Your task to perform on an android device: Check the news Image 0: 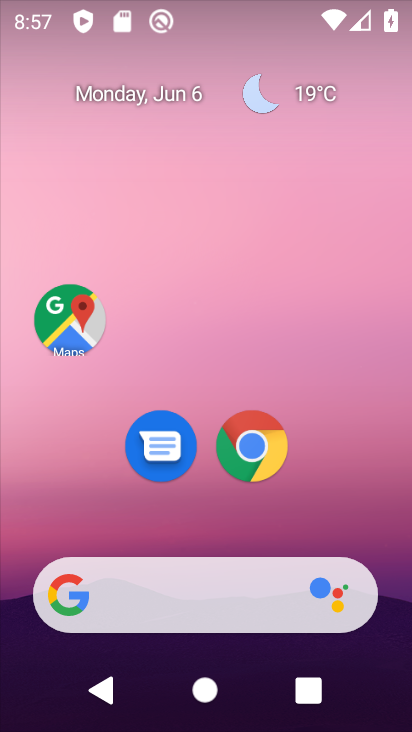
Step 0: drag from (203, 563) to (189, 290)
Your task to perform on an android device: Check the news Image 1: 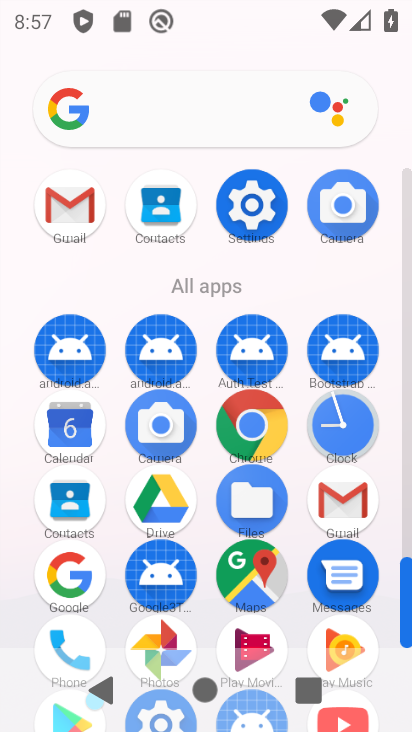
Step 1: click (65, 581)
Your task to perform on an android device: Check the news Image 2: 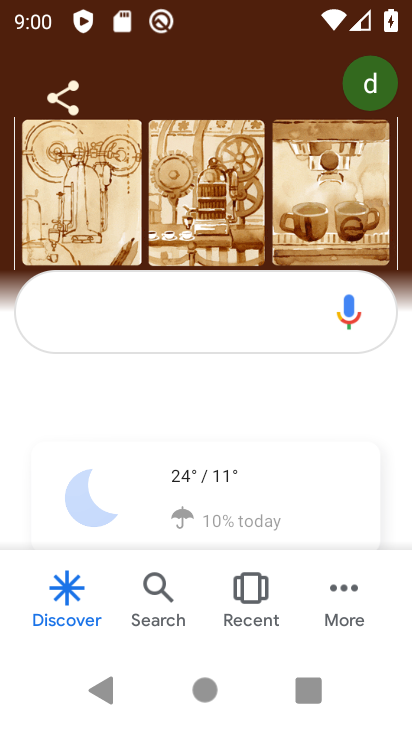
Step 2: click (184, 324)
Your task to perform on an android device: Check the news Image 3: 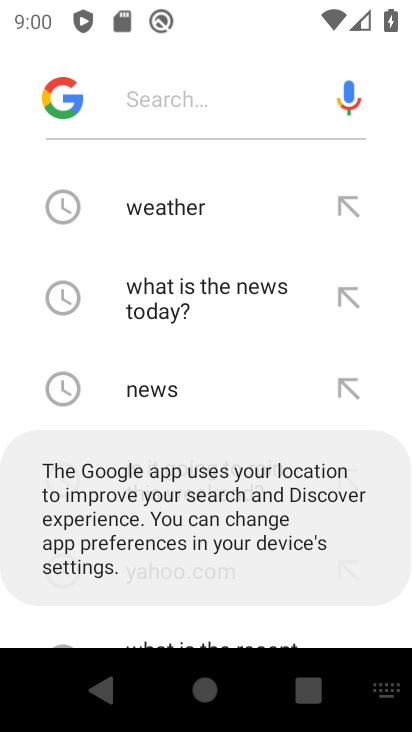
Step 3: click (175, 392)
Your task to perform on an android device: Check the news Image 4: 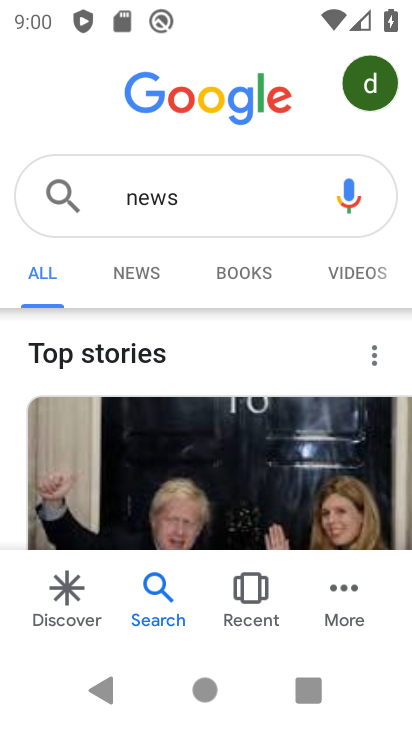
Step 4: task complete